Your task to perform on an android device: snooze an email in the gmail app Image 0: 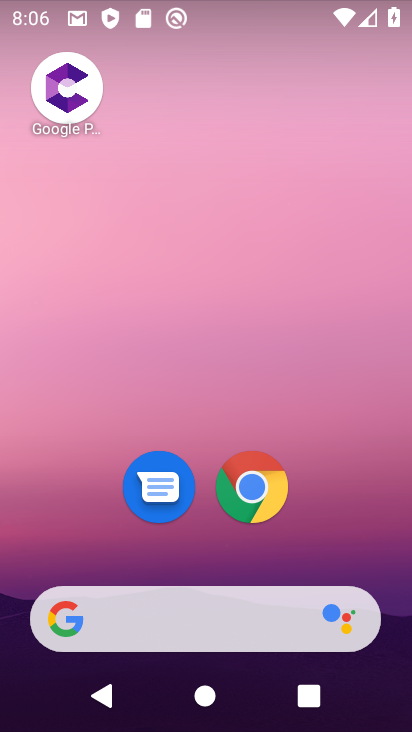
Step 0: click (238, 492)
Your task to perform on an android device: snooze an email in the gmail app Image 1: 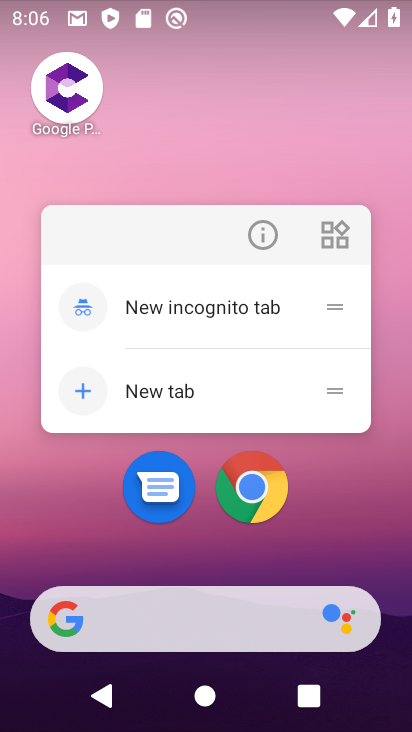
Step 1: click (190, 402)
Your task to perform on an android device: snooze an email in the gmail app Image 2: 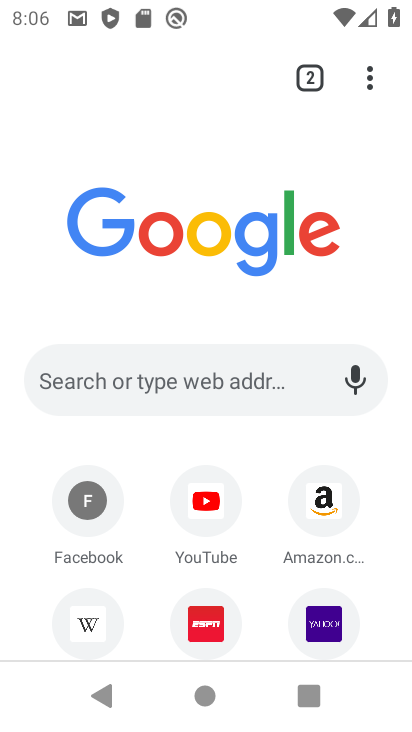
Step 2: click (313, 613)
Your task to perform on an android device: snooze an email in the gmail app Image 3: 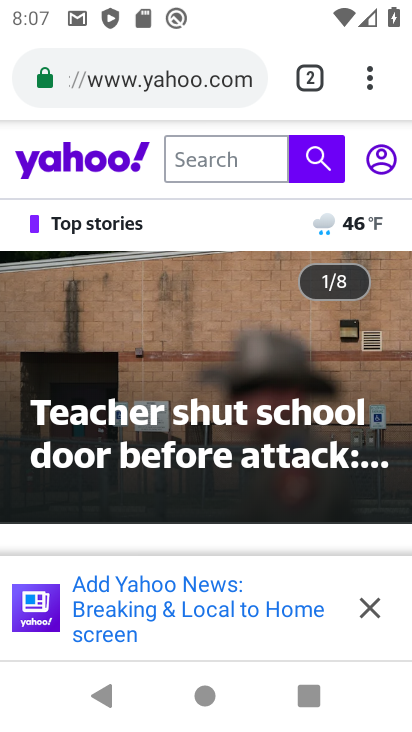
Step 3: task complete